Your task to perform on an android device: Go to eBay Image 0: 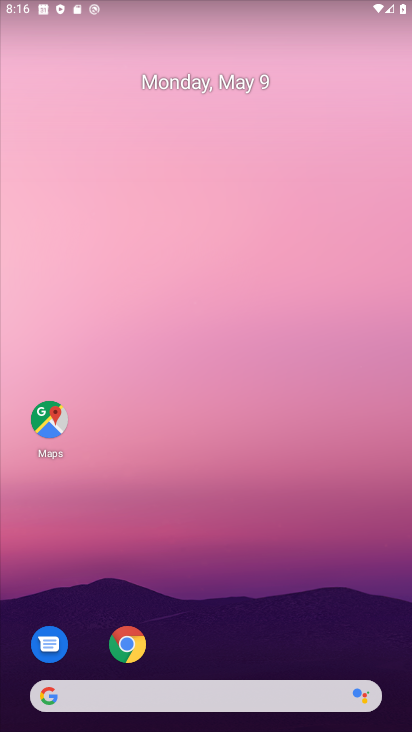
Step 0: click (104, 647)
Your task to perform on an android device: Go to eBay Image 1: 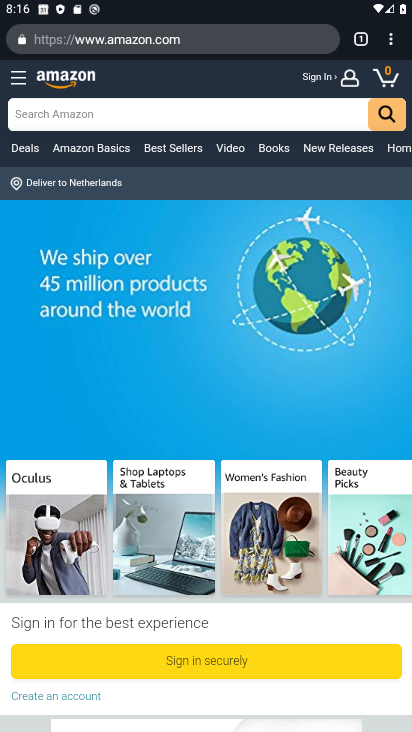
Step 1: click (165, 43)
Your task to perform on an android device: Go to eBay Image 2: 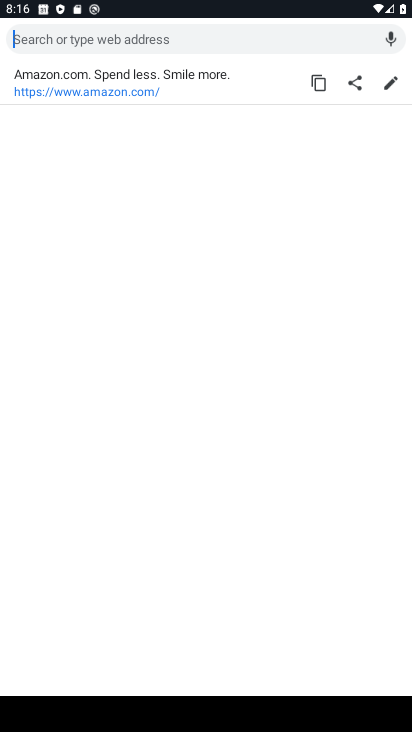
Step 2: type "ebay"
Your task to perform on an android device: Go to eBay Image 3: 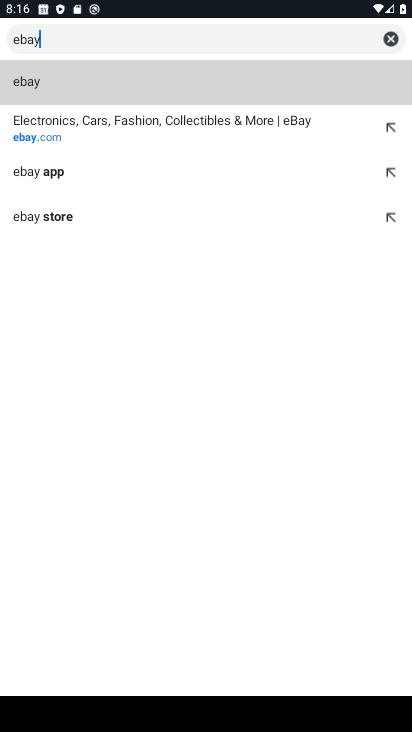
Step 3: click (78, 128)
Your task to perform on an android device: Go to eBay Image 4: 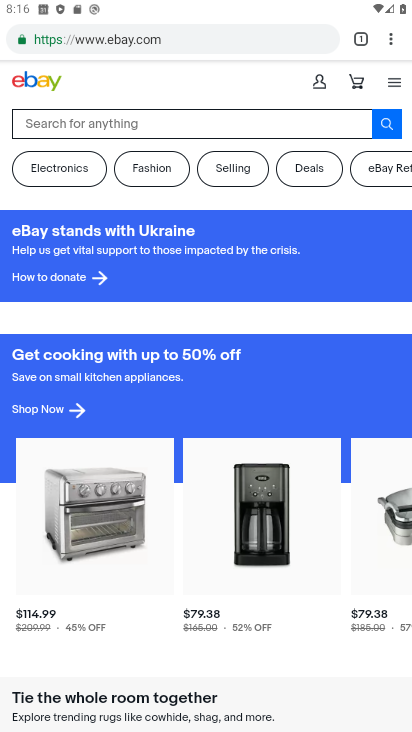
Step 4: task complete